Your task to perform on an android device: When is my next meeting? Image 0: 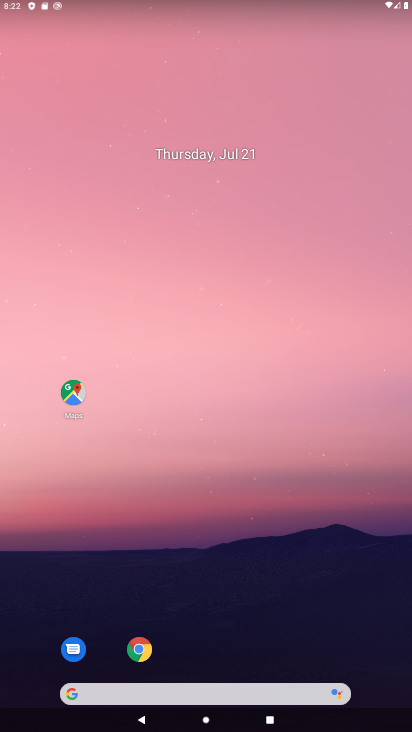
Step 0: click (203, 168)
Your task to perform on an android device: When is my next meeting? Image 1: 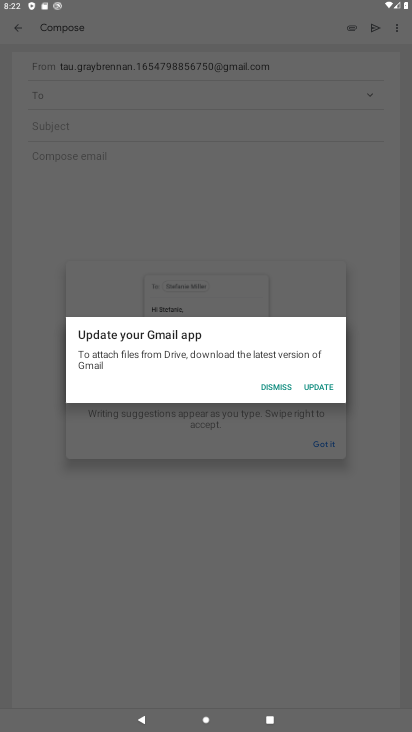
Step 1: press home button
Your task to perform on an android device: When is my next meeting? Image 2: 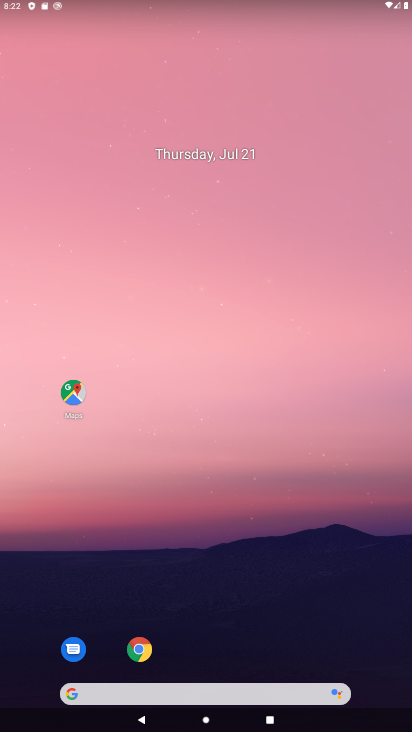
Step 2: click (195, 154)
Your task to perform on an android device: When is my next meeting? Image 3: 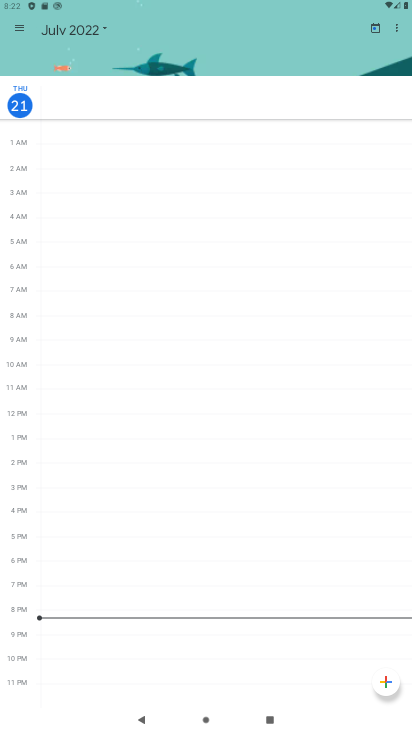
Step 3: task complete